Your task to perform on an android device: star an email in the gmail app Image 0: 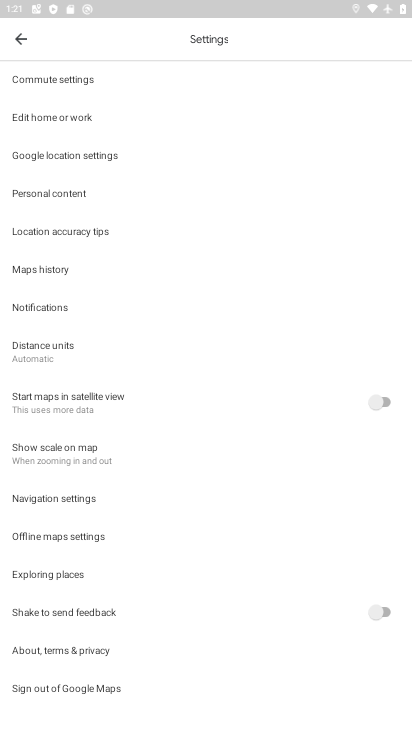
Step 0: press home button
Your task to perform on an android device: star an email in the gmail app Image 1: 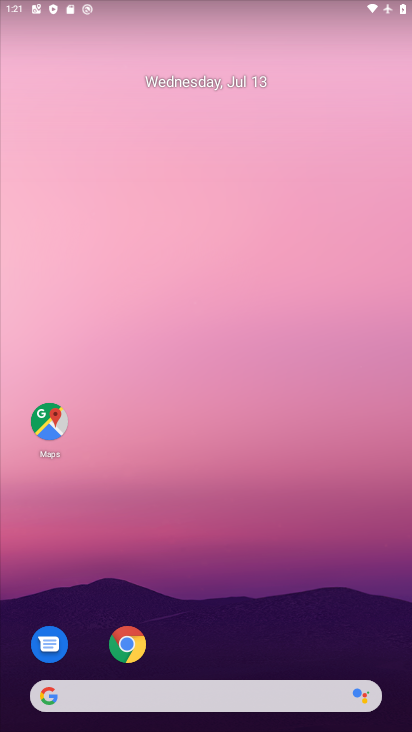
Step 1: drag from (330, 550) to (256, 72)
Your task to perform on an android device: star an email in the gmail app Image 2: 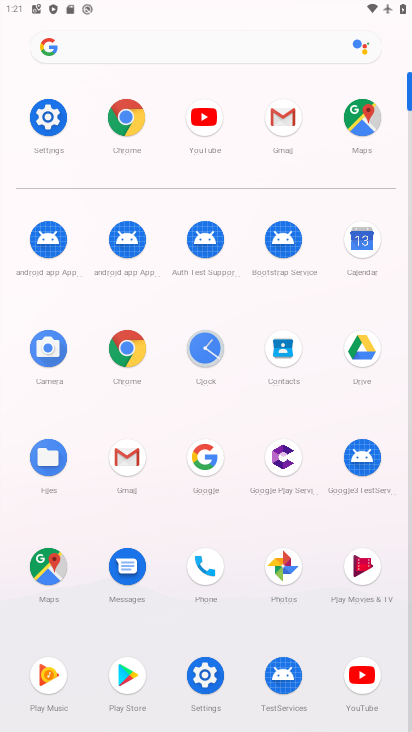
Step 2: click (288, 121)
Your task to perform on an android device: star an email in the gmail app Image 3: 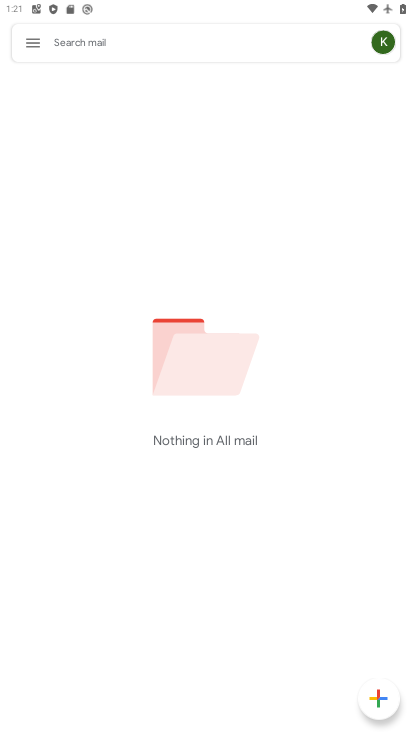
Step 3: click (30, 36)
Your task to perform on an android device: star an email in the gmail app Image 4: 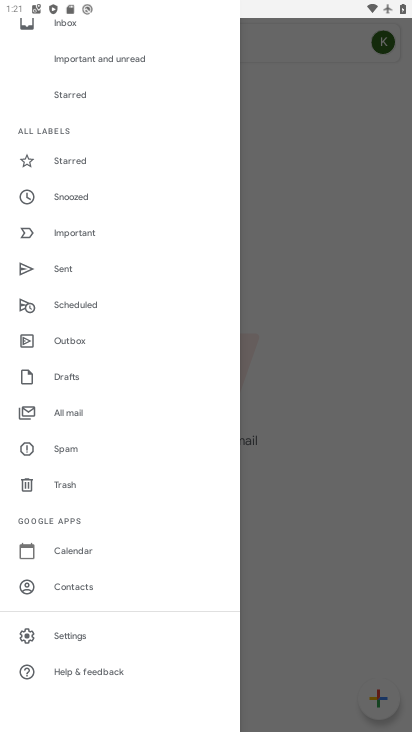
Step 4: click (67, 411)
Your task to perform on an android device: star an email in the gmail app Image 5: 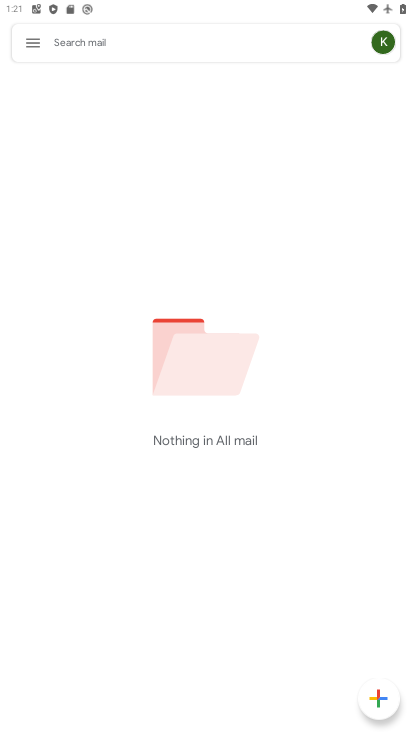
Step 5: task complete